Your task to perform on an android device: stop showing notifications on the lock screen Image 0: 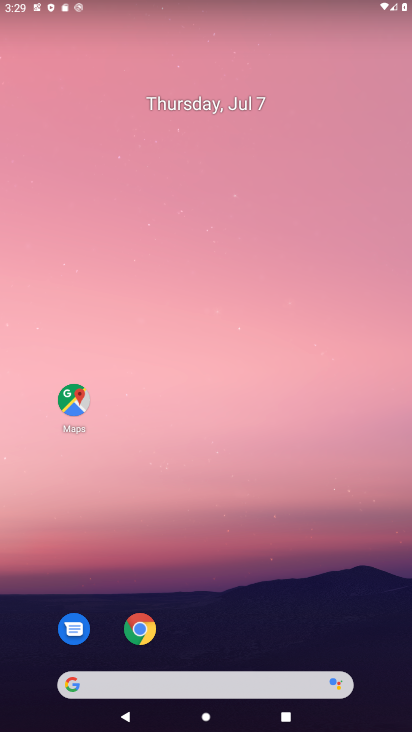
Step 0: drag from (273, 545) to (236, 222)
Your task to perform on an android device: stop showing notifications on the lock screen Image 1: 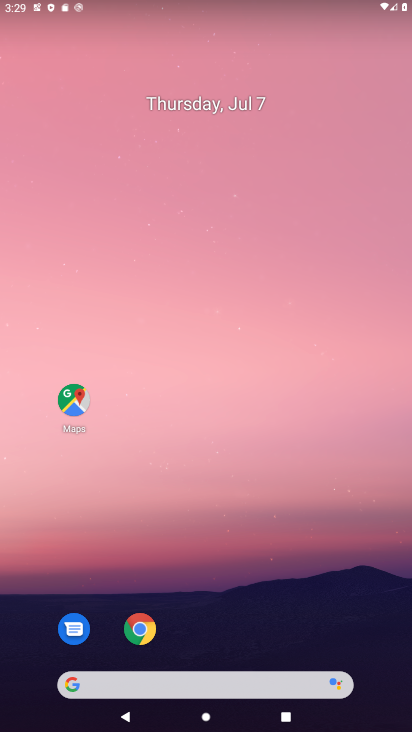
Step 1: drag from (250, 655) to (212, 250)
Your task to perform on an android device: stop showing notifications on the lock screen Image 2: 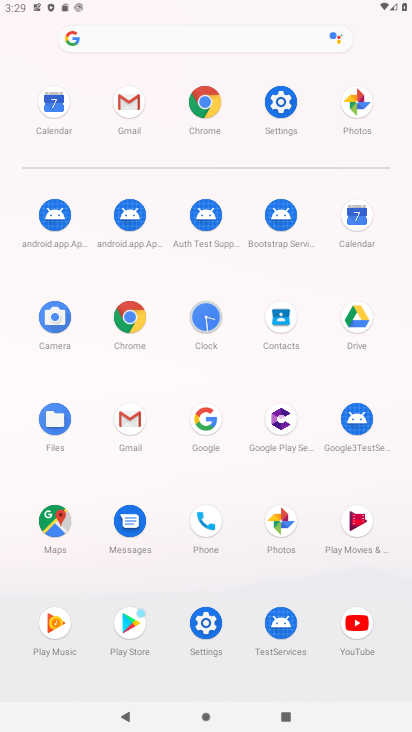
Step 2: click (267, 99)
Your task to perform on an android device: stop showing notifications on the lock screen Image 3: 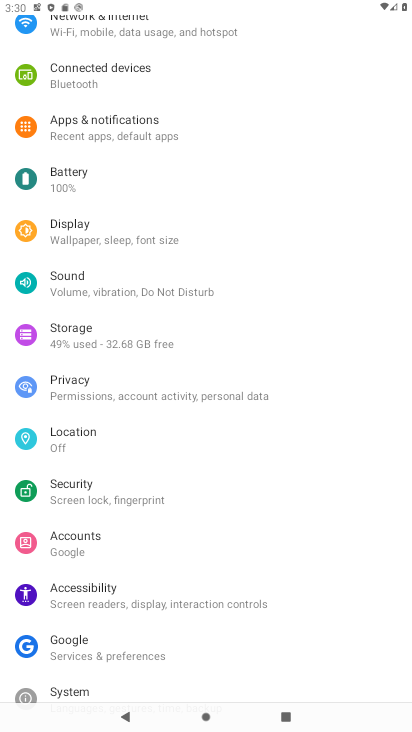
Step 3: drag from (156, 136) to (203, 557)
Your task to perform on an android device: stop showing notifications on the lock screen Image 4: 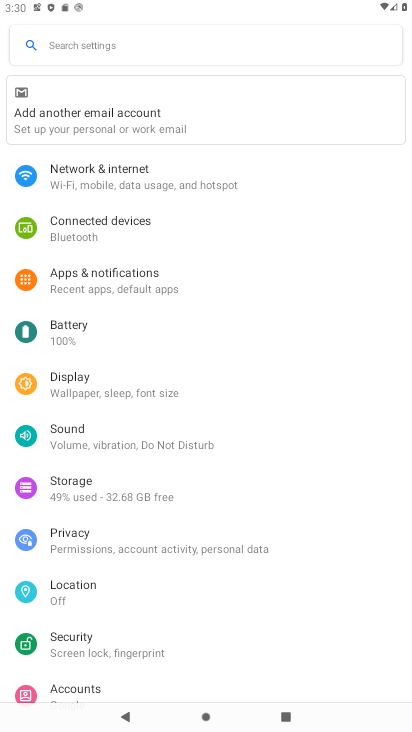
Step 4: click (131, 277)
Your task to perform on an android device: stop showing notifications on the lock screen Image 5: 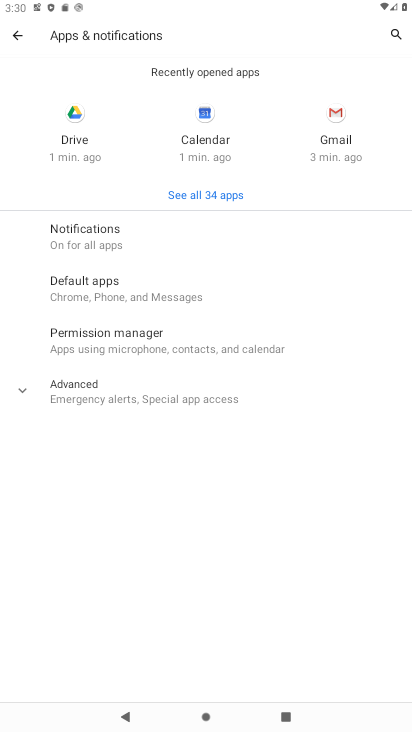
Step 5: click (97, 228)
Your task to perform on an android device: stop showing notifications on the lock screen Image 6: 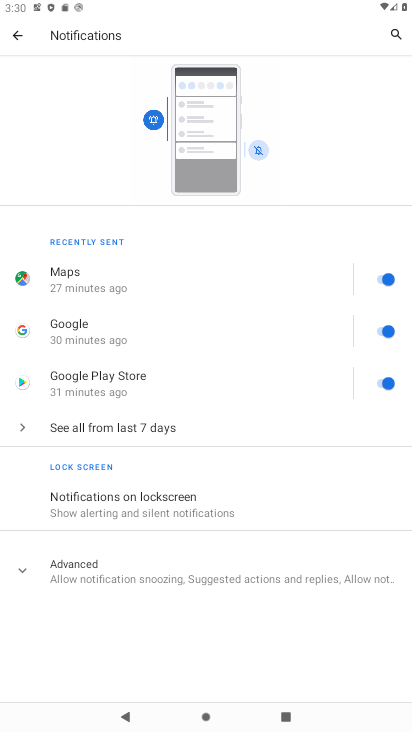
Step 6: click (172, 562)
Your task to perform on an android device: stop showing notifications on the lock screen Image 7: 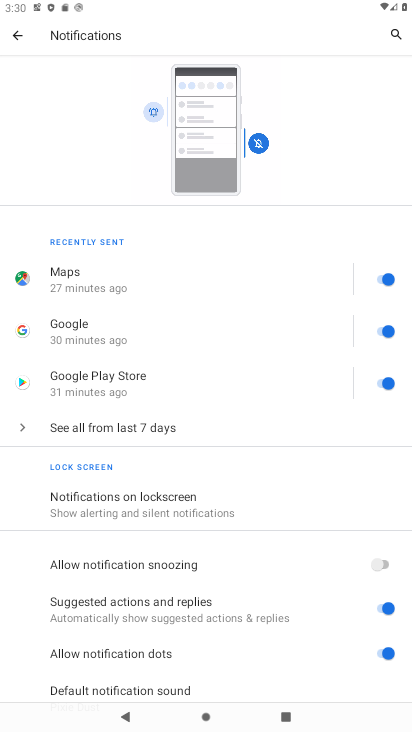
Step 7: click (170, 477)
Your task to perform on an android device: stop showing notifications on the lock screen Image 8: 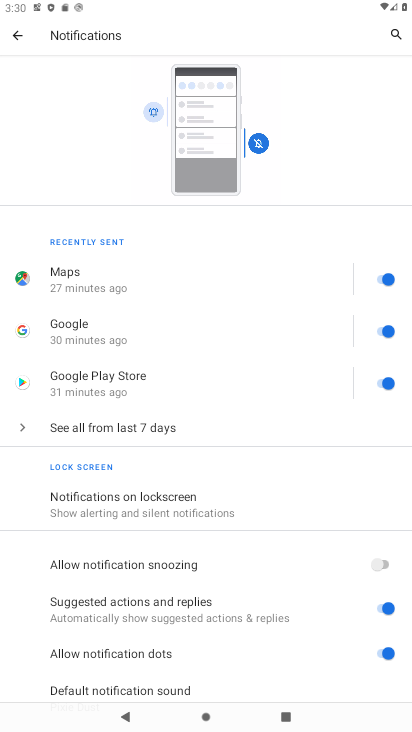
Step 8: click (170, 480)
Your task to perform on an android device: stop showing notifications on the lock screen Image 9: 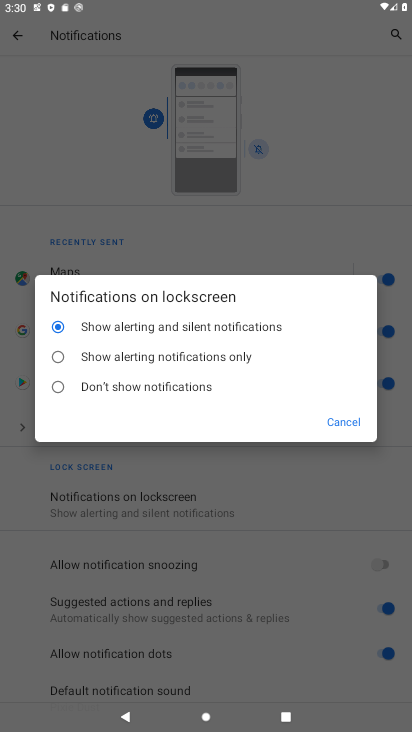
Step 9: click (122, 390)
Your task to perform on an android device: stop showing notifications on the lock screen Image 10: 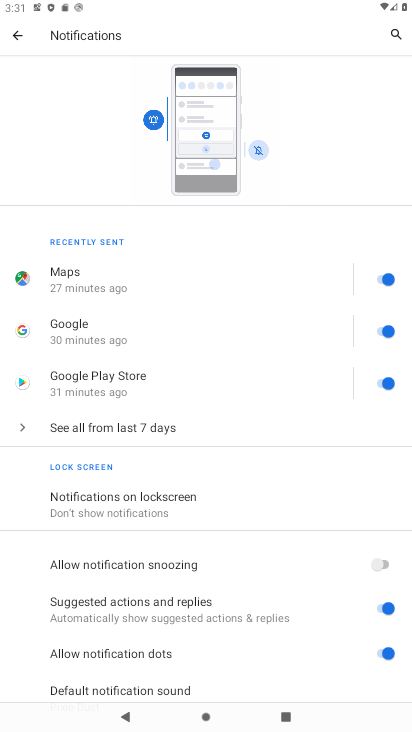
Step 10: task complete